Your task to perform on an android device: see creations saved in the google photos Image 0: 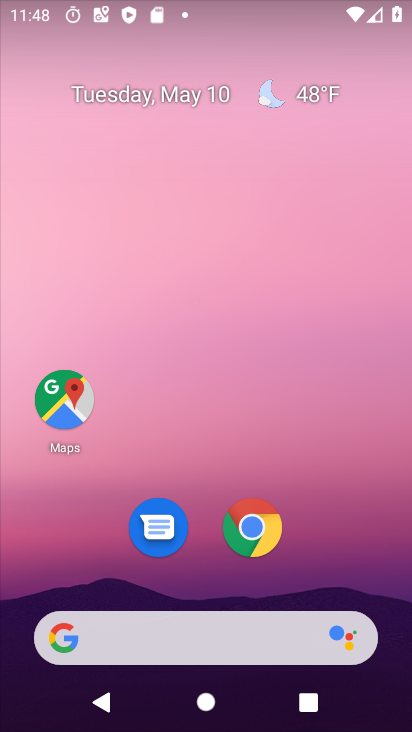
Step 0: drag from (225, 726) to (230, 124)
Your task to perform on an android device: see creations saved in the google photos Image 1: 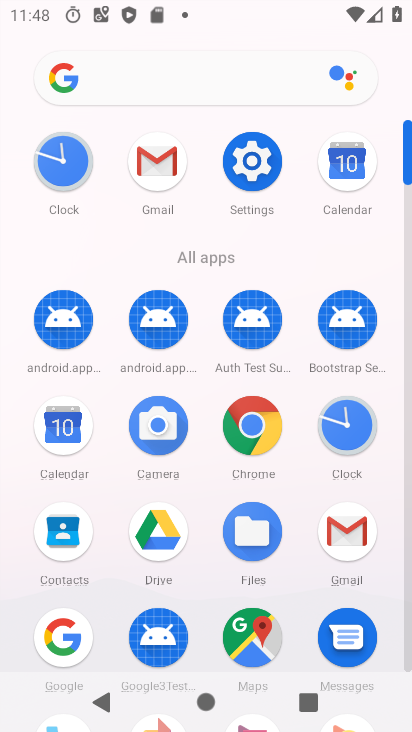
Step 1: drag from (195, 605) to (185, 176)
Your task to perform on an android device: see creations saved in the google photos Image 2: 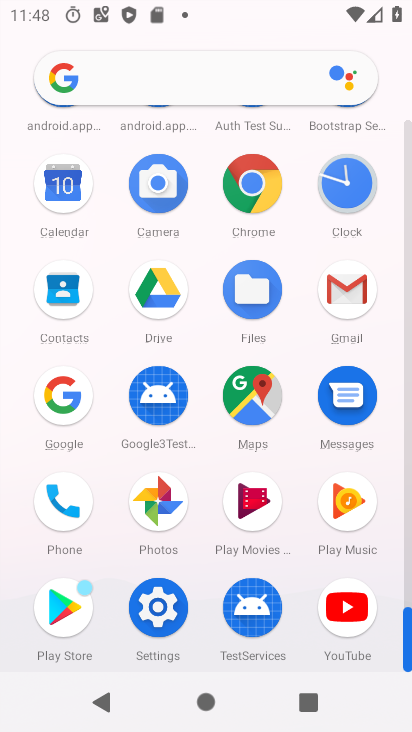
Step 2: click (156, 508)
Your task to perform on an android device: see creations saved in the google photos Image 3: 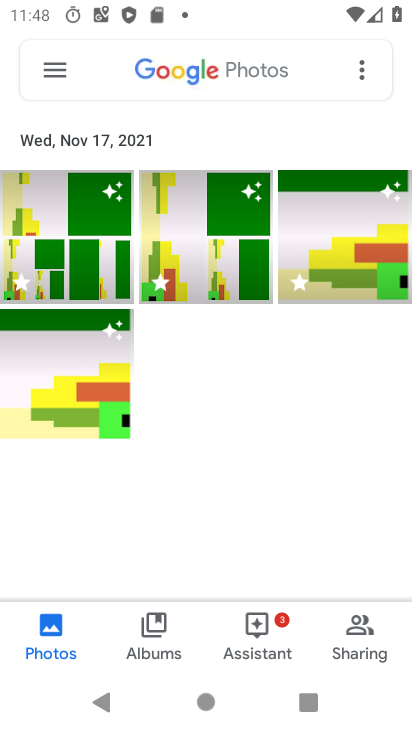
Step 3: click (192, 77)
Your task to perform on an android device: see creations saved in the google photos Image 4: 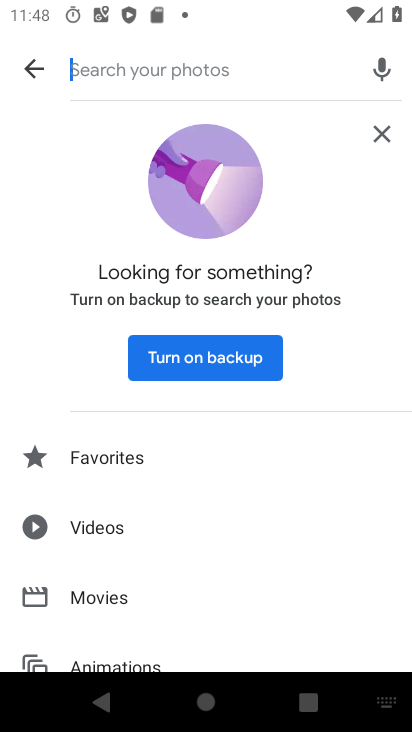
Step 4: drag from (152, 634) to (133, 329)
Your task to perform on an android device: see creations saved in the google photos Image 5: 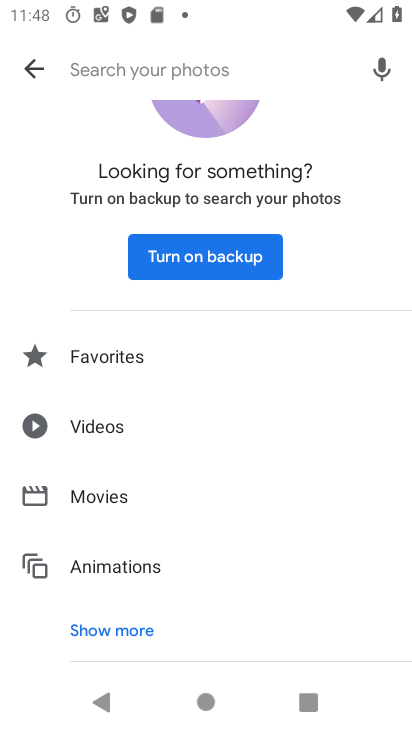
Step 5: click (122, 627)
Your task to perform on an android device: see creations saved in the google photos Image 6: 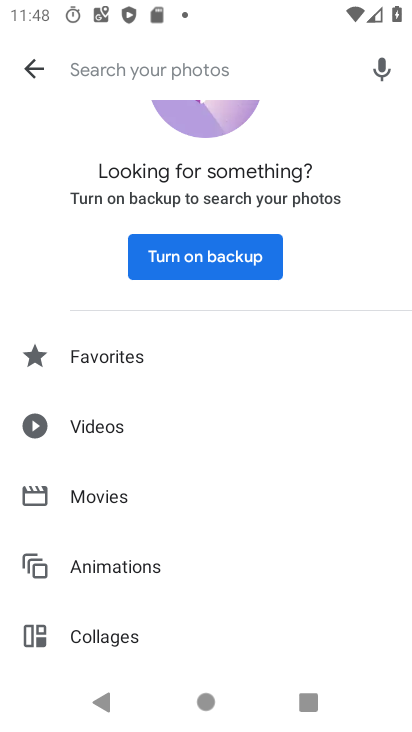
Step 6: drag from (170, 628) to (152, 370)
Your task to perform on an android device: see creations saved in the google photos Image 7: 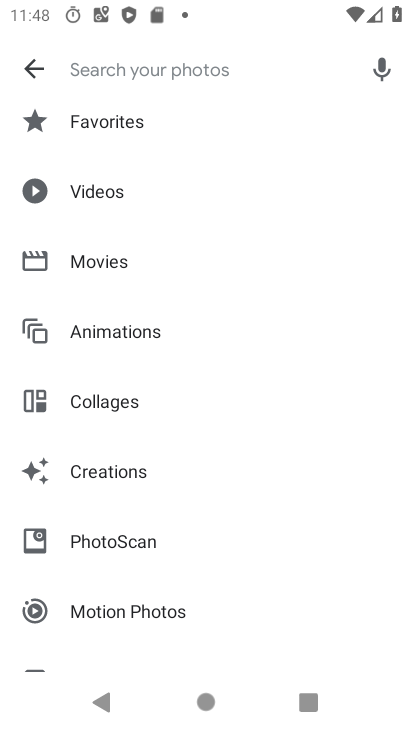
Step 7: click (110, 467)
Your task to perform on an android device: see creations saved in the google photos Image 8: 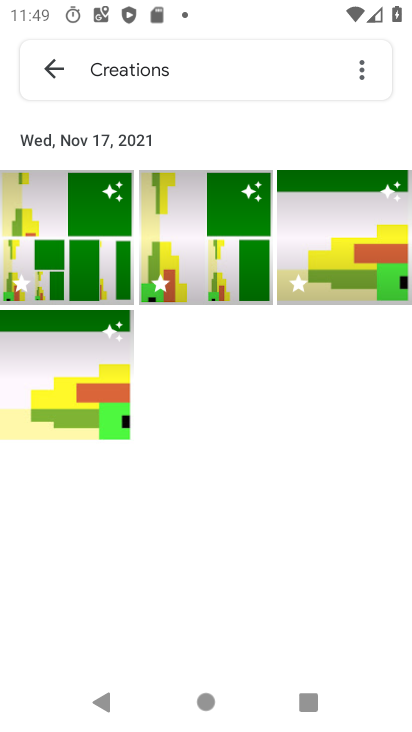
Step 8: task complete